Your task to perform on an android device: Go to Google Image 0: 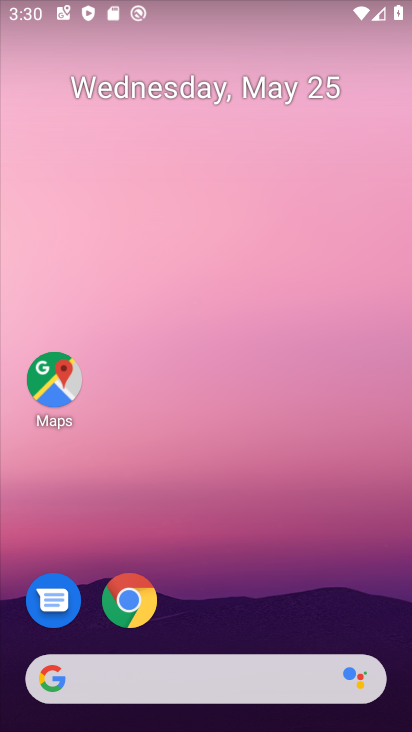
Step 0: click (88, 669)
Your task to perform on an android device: Go to Google Image 1: 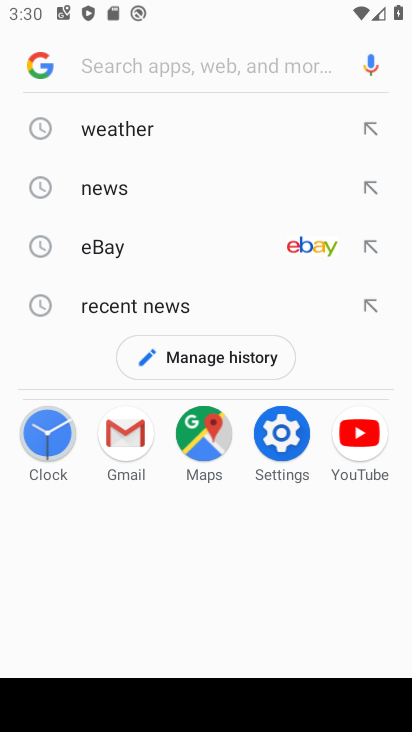
Step 1: click (37, 58)
Your task to perform on an android device: Go to Google Image 2: 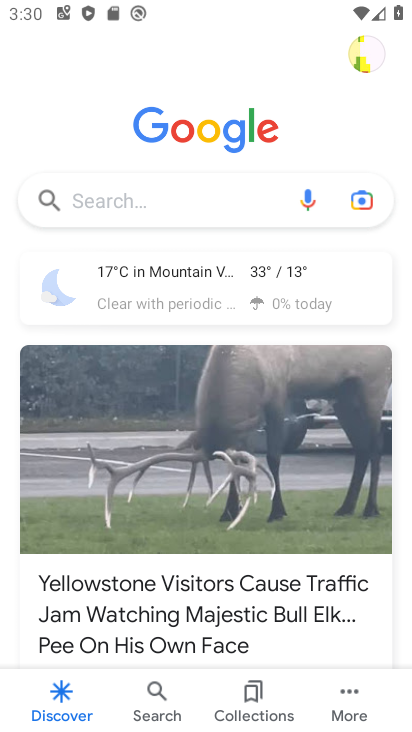
Step 2: task complete